Your task to perform on an android device: Find coffee shops on Maps Image 0: 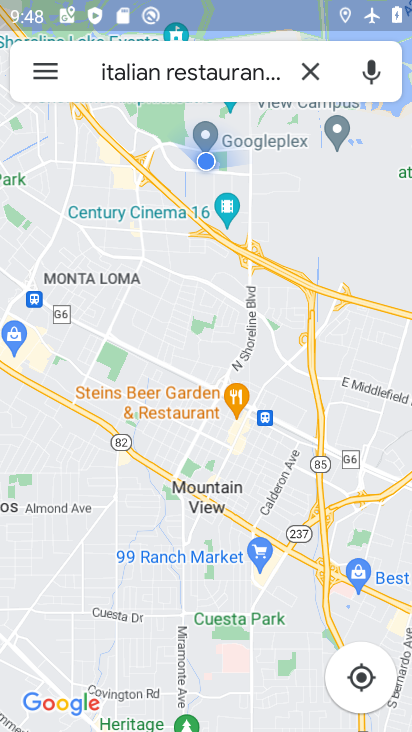
Step 0: press home button
Your task to perform on an android device: Find coffee shops on Maps Image 1: 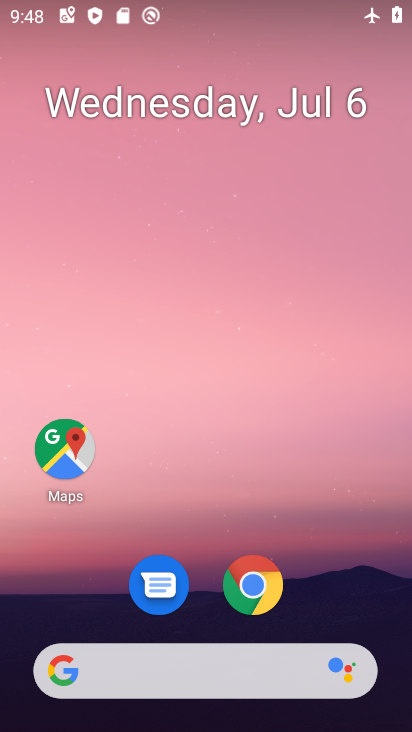
Step 1: drag from (222, 524) to (252, 1)
Your task to perform on an android device: Find coffee shops on Maps Image 2: 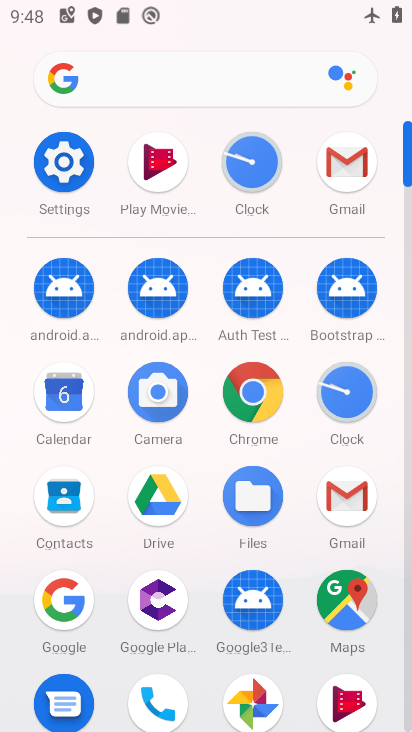
Step 2: click (350, 612)
Your task to perform on an android device: Find coffee shops on Maps Image 3: 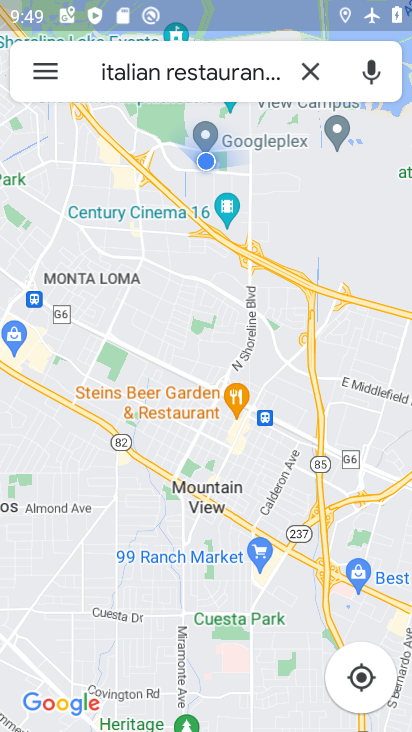
Step 3: click (310, 68)
Your task to perform on an android device: Find coffee shops on Maps Image 4: 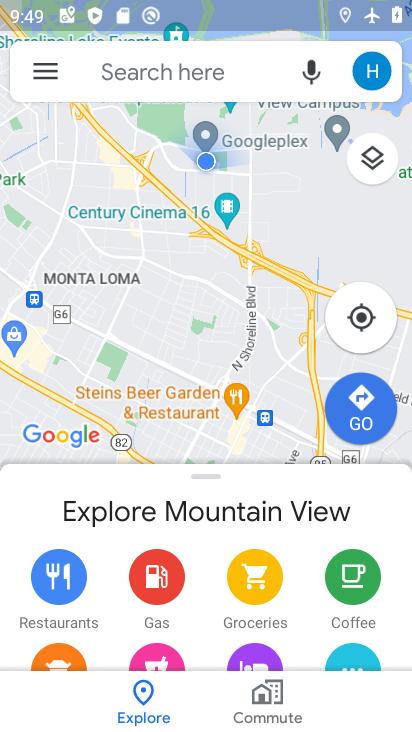
Step 4: click (212, 65)
Your task to perform on an android device: Find coffee shops on Maps Image 5: 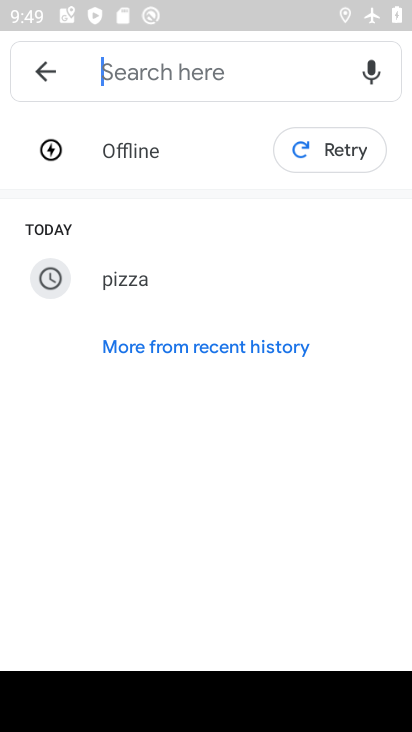
Step 5: type "coffee"
Your task to perform on an android device: Find coffee shops on Maps Image 6: 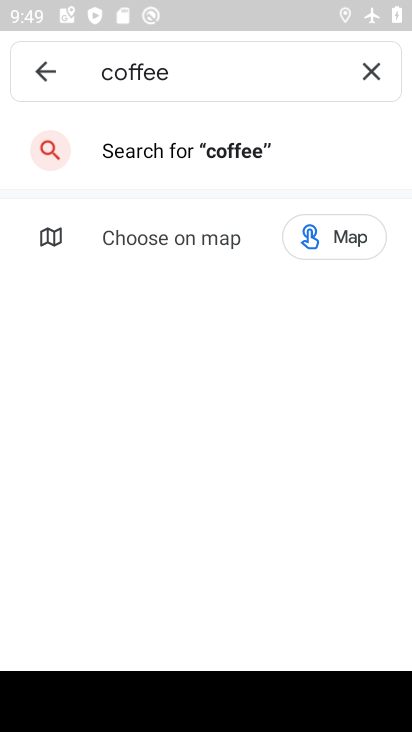
Step 6: click (244, 153)
Your task to perform on an android device: Find coffee shops on Maps Image 7: 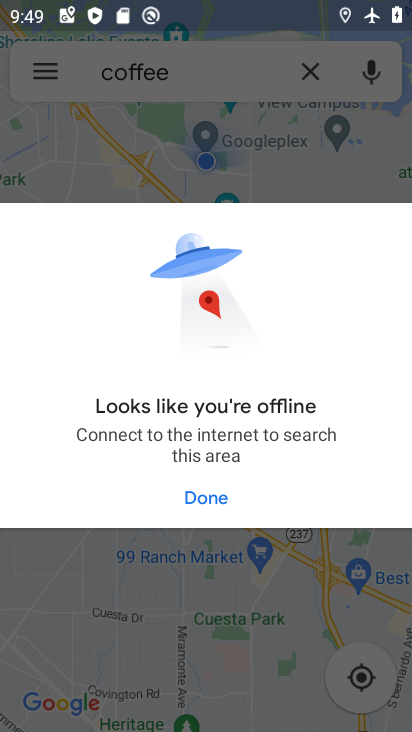
Step 7: task complete